Your task to perform on an android device: open a new tab in the chrome app Image 0: 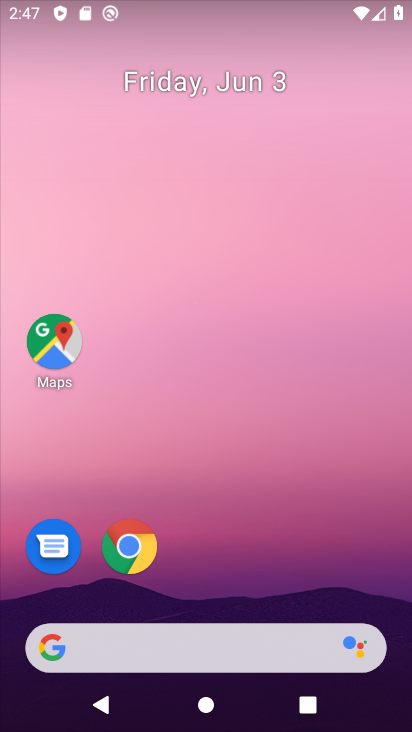
Step 0: drag from (257, 556) to (242, 162)
Your task to perform on an android device: open a new tab in the chrome app Image 1: 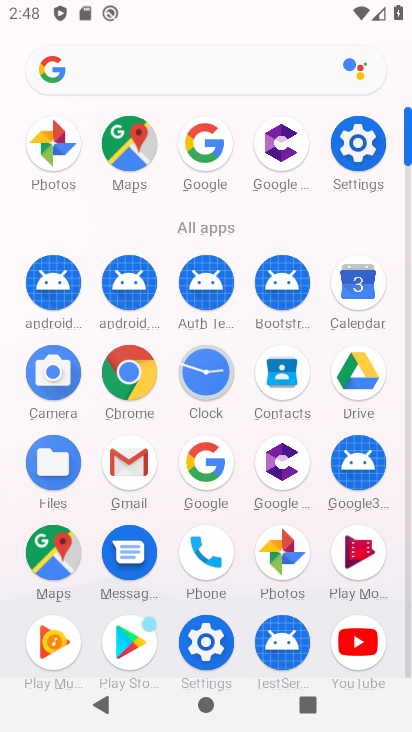
Step 1: click (124, 369)
Your task to perform on an android device: open a new tab in the chrome app Image 2: 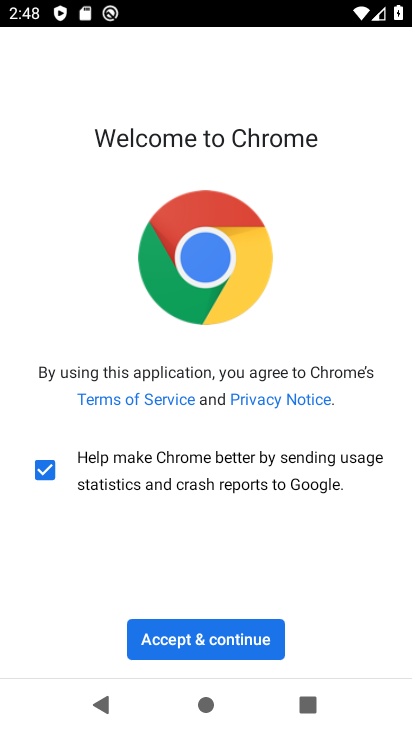
Step 2: click (181, 647)
Your task to perform on an android device: open a new tab in the chrome app Image 3: 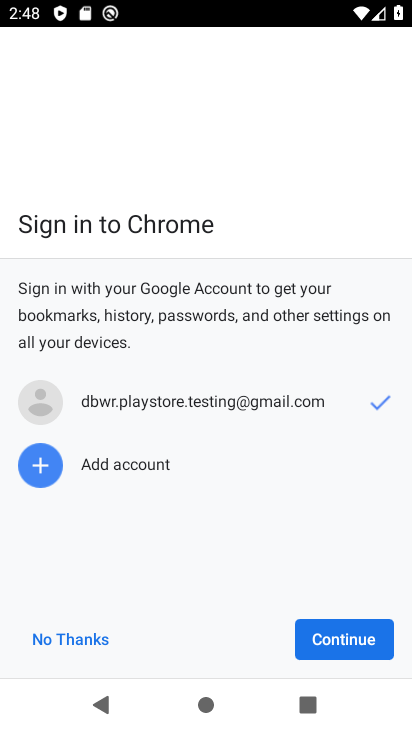
Step 3: click (354, 649)
Your task to perform on an android device: open a new tab in the chrome app Image 4: 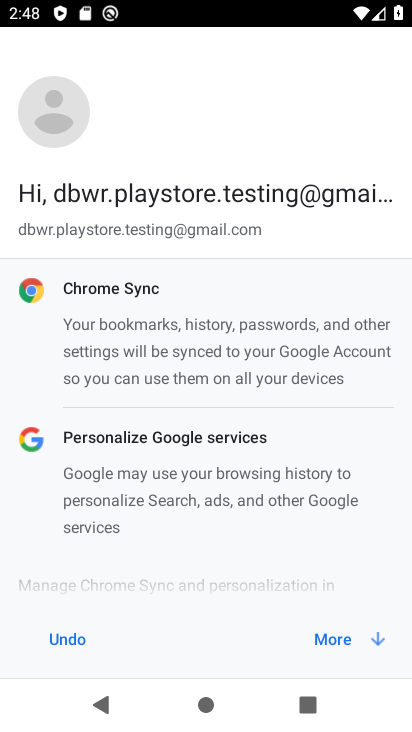
Step 4: click (353, 651)
Your task to perform on an android device: open a new tab in the chrome app Image 5: 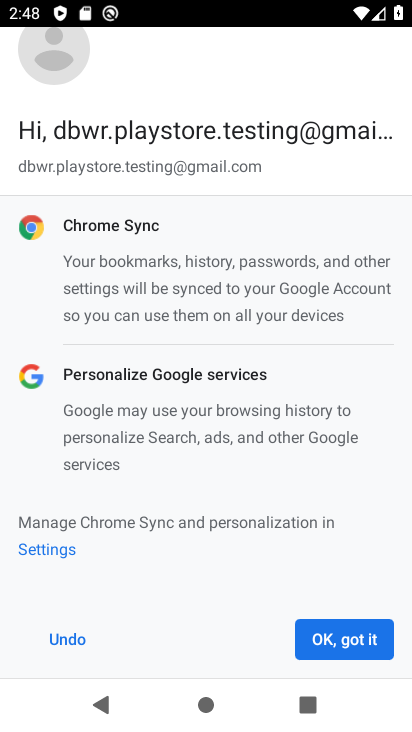
Step 5: click (354, 642)
Your task to perform on an android device: open a new tab in the chrome app Image 6: 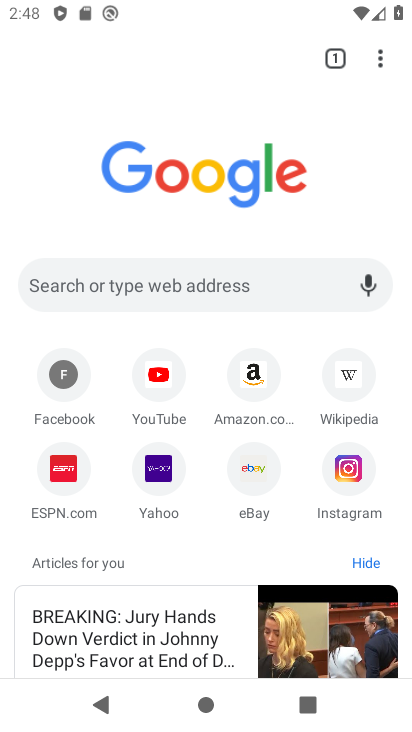
Step 6: click (328, 53)
Your task to perform on an android device: open a new tab in the chrome app Image 7: 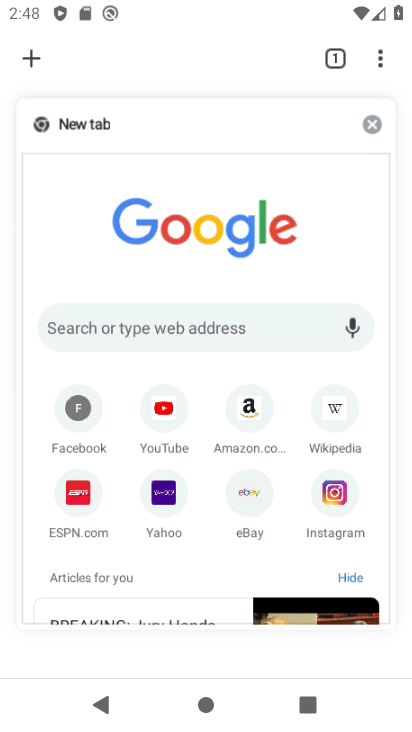
Step 7: click (33, 62)
Your task to perform on an android device: open a new tab in the chrome app Image 8: 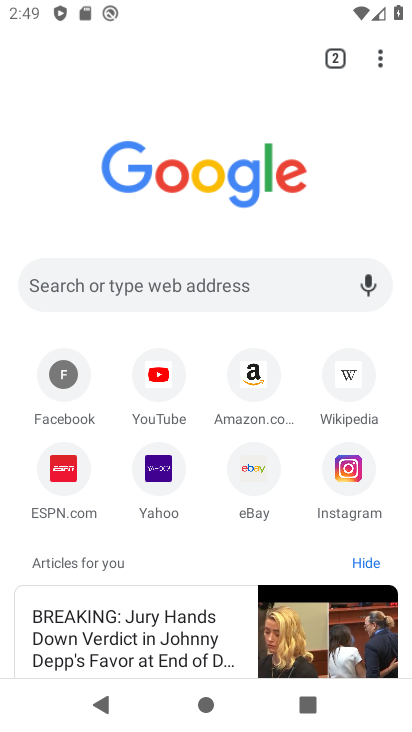
Step 8: task complete